Your task to perform on an android device: change the upload size in google photos Image 0: 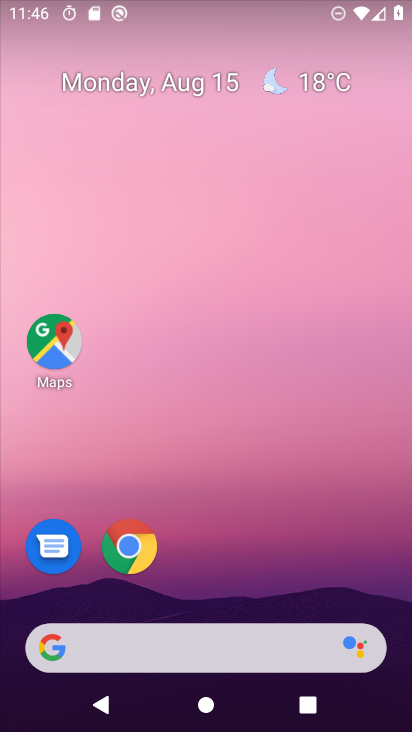
Step 0: drag from (241, 588) to (185, 148)
Your task to perform on an android device: change the upload size in google photos Image 1: 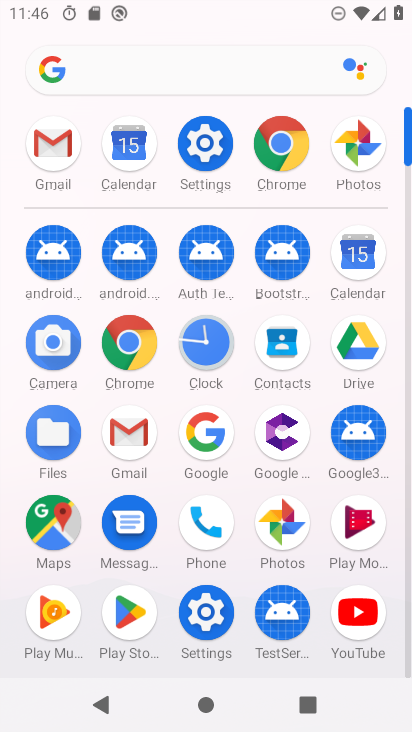
Step 1: click (274, 523)
Your task to perform on an android device: change the upload size in google photos Image 2: 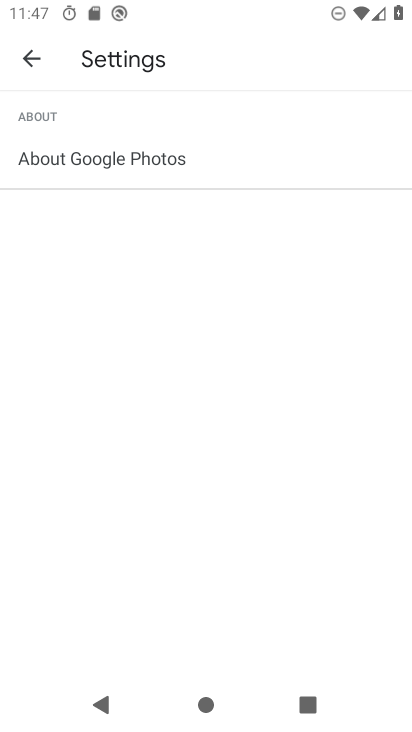
Step 2: click (21, 61)
Your task to perform on an android device: change the upload size in google photos Image 3: 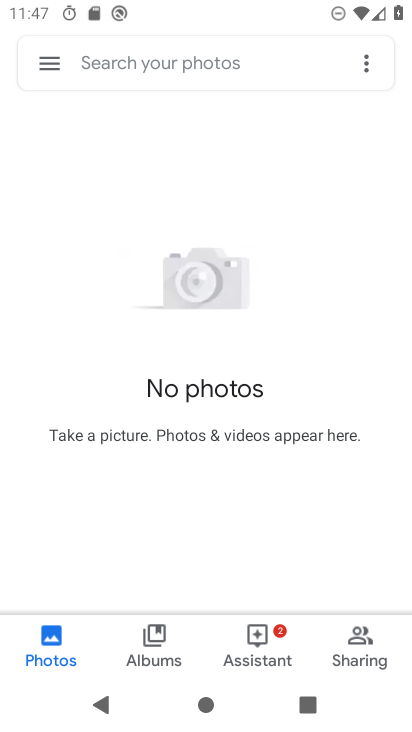
Step 3: click (48, 60)
Your task to perform on an android device: change the upload size in google photos Image 4: 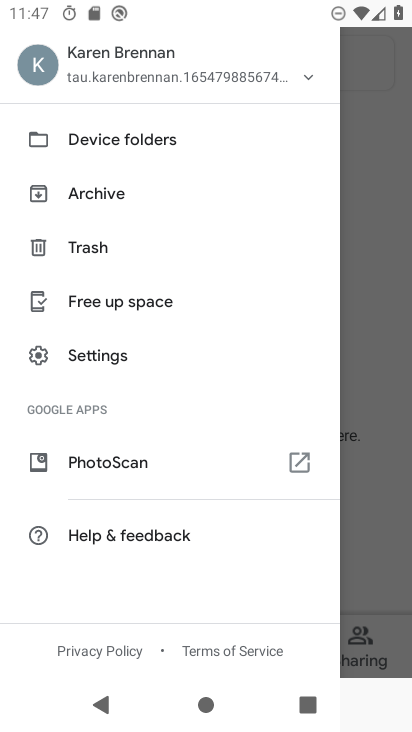
Step 4: click (103, 351)
Your task to perform on an android device: change the upload size in google photos Image 5: 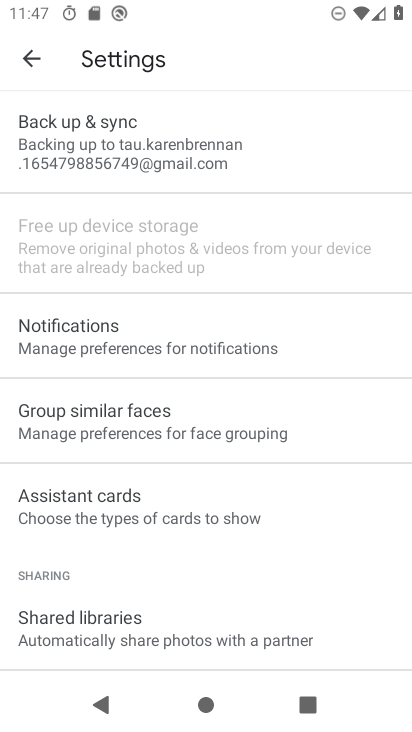
Step 5: click (88, 133)
Your task to perform on an android device: change the upload size in google photos Image 6: 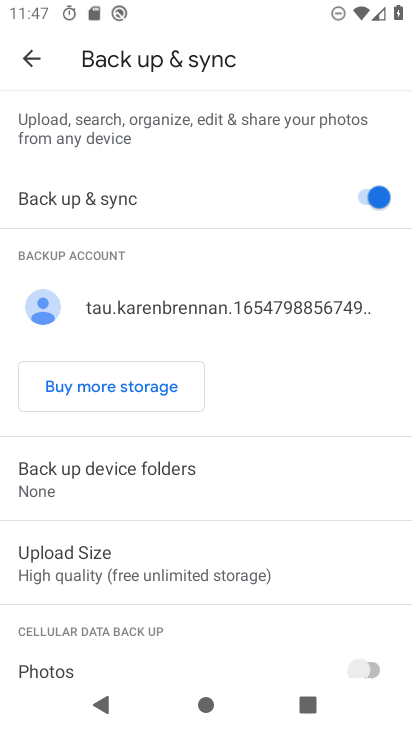
Step 6: click (83, 563)
Your task to perform on an android device: change the upload size in google photos Image 7: 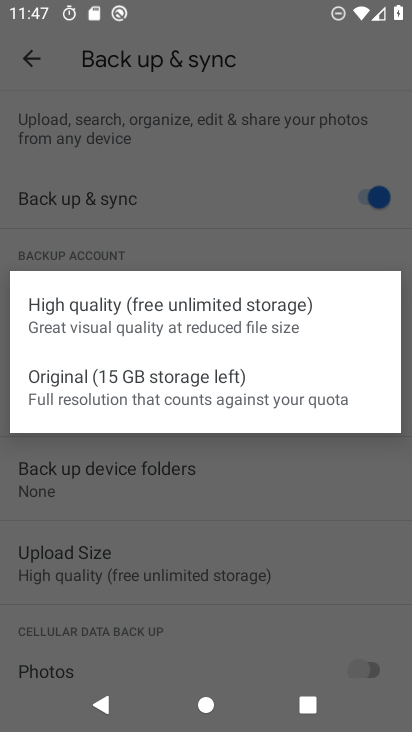
Step 7: click (64, 391)
Your task to perform on an android device: change the upload size in google photos Image 8: 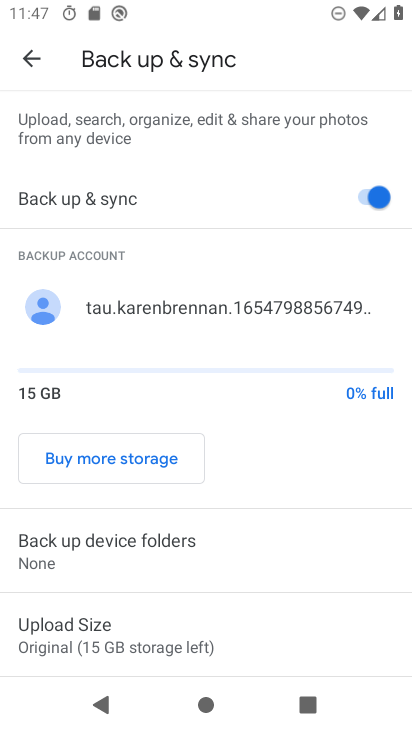
Step 8: task complete